Your task to perform on an android device: Clear the cart on ebay. Image 0: 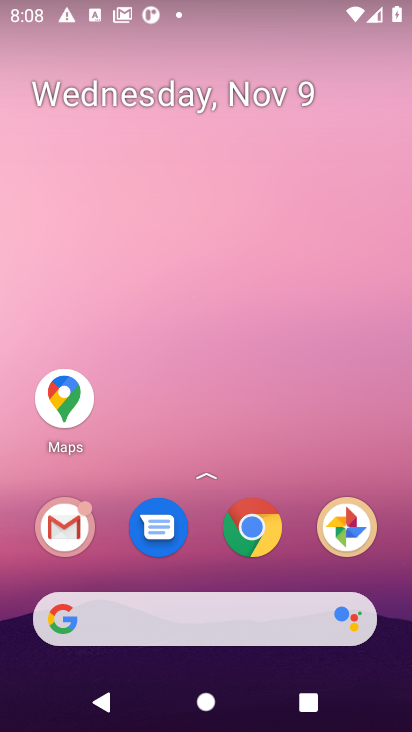
Step 0: click (251, 528)
Your task to perform on an android device: Clear the cart on ebay. Image 1: 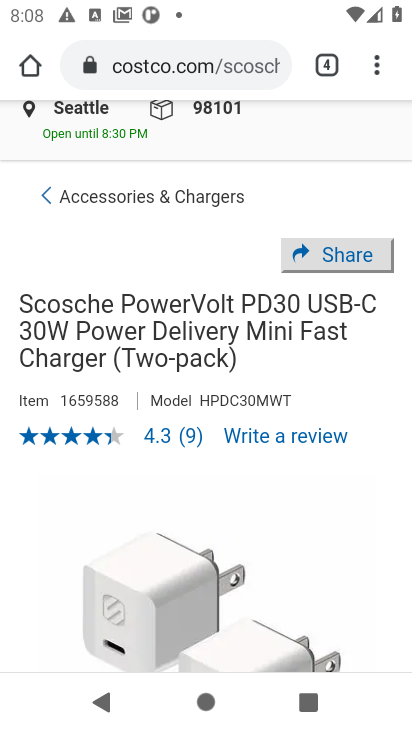
Step 1: click (159, 64)
Your task to perform on an android device: Clear the cart on ebay. Image 2: 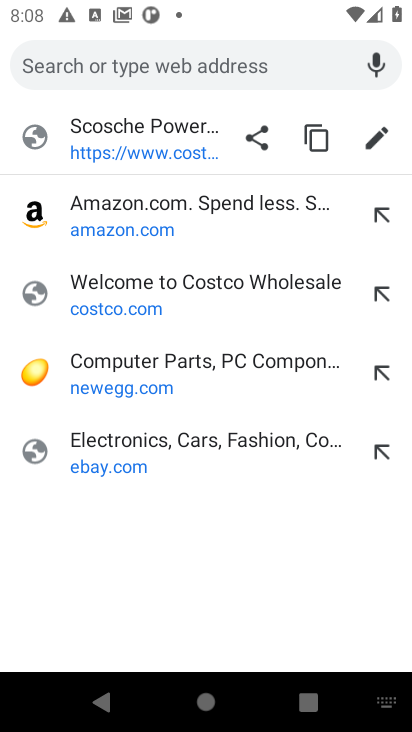
Step 2: click (96, 447)
Your task to perform on an android device: Clear the cart on ebay. Image 3: 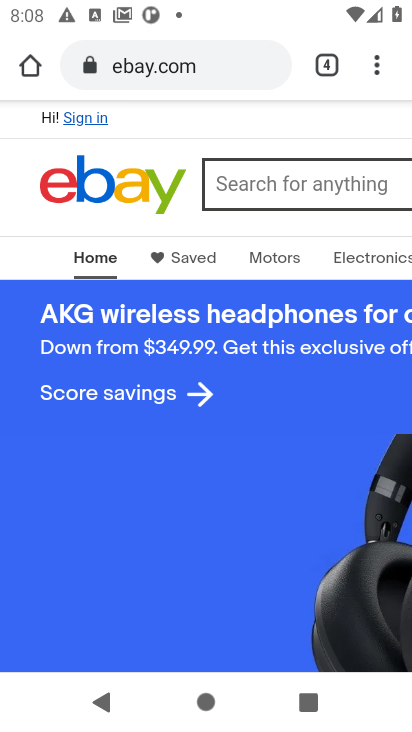
Step 3: drag from (264, 149) to (6, 139)
Your task to perform on an android device: Clear the cart on ebay. Image 4: 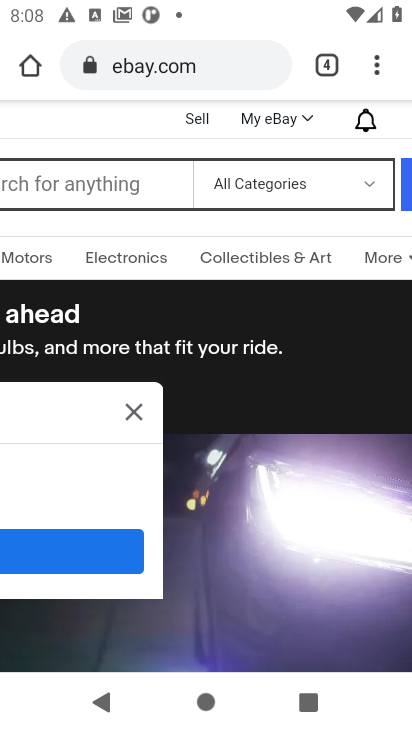
Step 4: drag from (368, 144) to (10, 144)
Your task to perform on an android device: Clear the cart on ebay. Image 5: 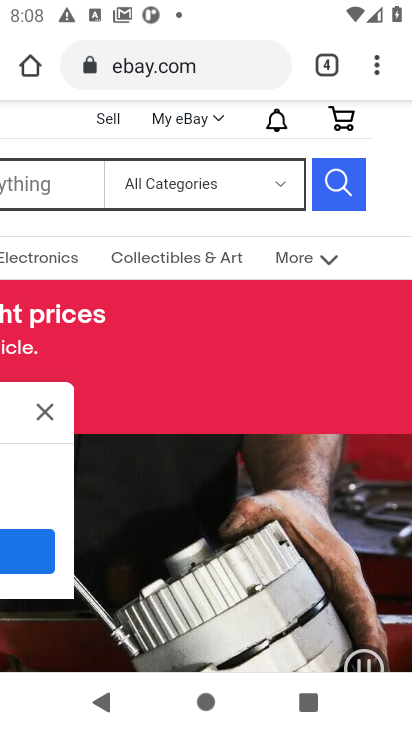
Step 5: click (337, 116)
Your task to perform on an android device: Clear the cart on ebay. Image 6: 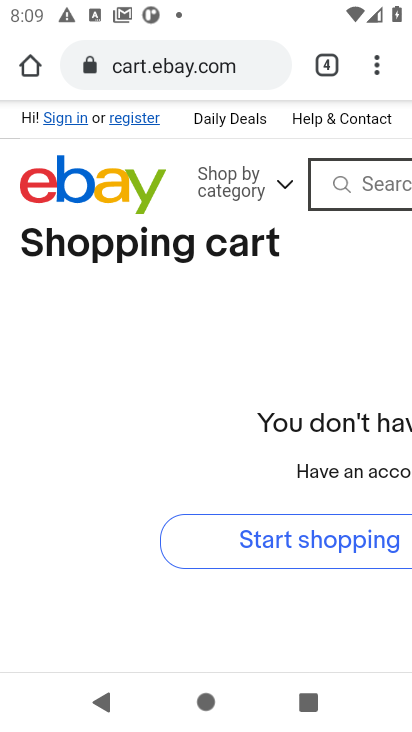
Step 6: task complete